Your task to perform on an android device: Open Google Maps and go to "Timeline" Image 0: 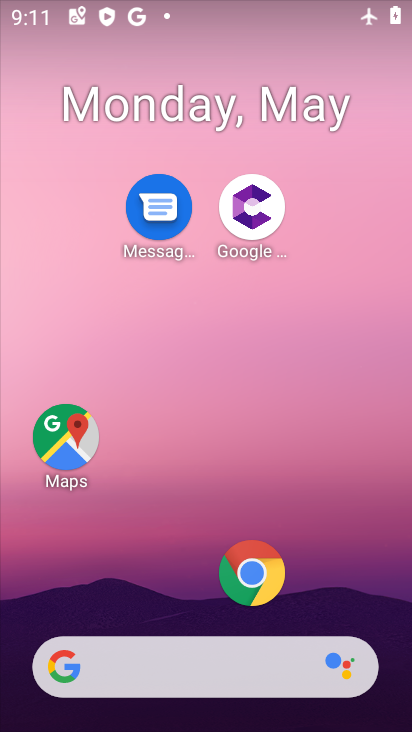
Step 0: click (69, 439)
Your task to perform on an android device: Open Google Maps and go to "Timeline" Image 1: 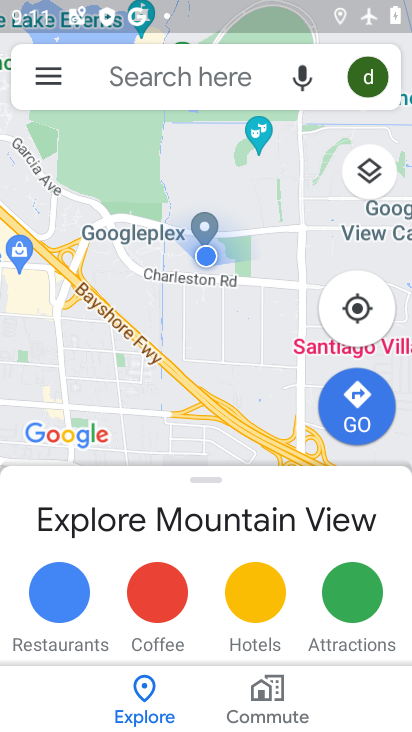
Step 1: click (55, 82)
Your task to perform on an android device: Open Google Maps and go to "Timeline" Image 2: 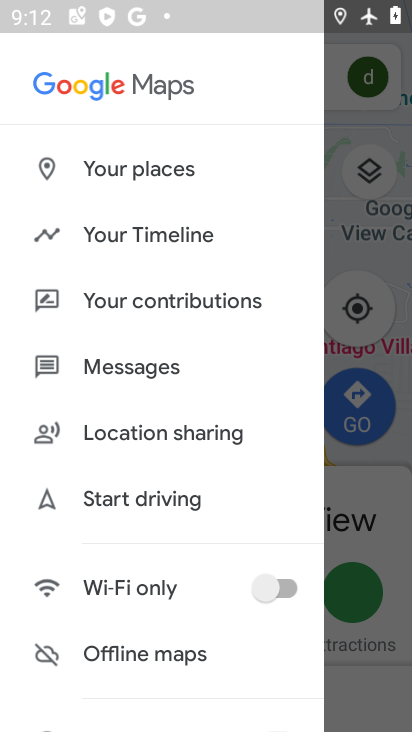
Step 2: click (151, 234)
Your task to perform on an android device: Open Google Maps and go to "Timeline" Image 3: 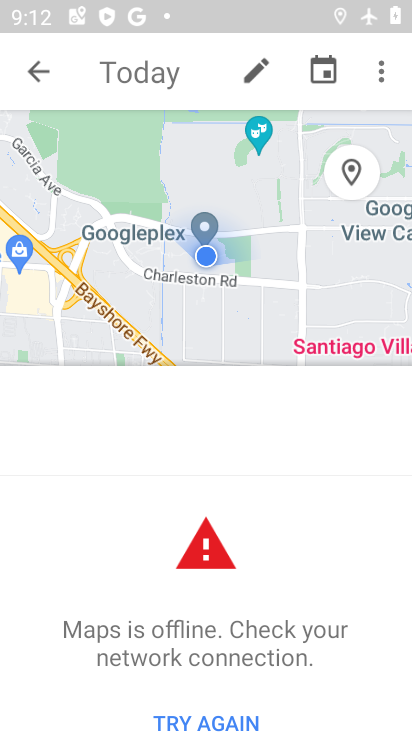
Step 3: task complete